Your task to perform on an android device: check out phone information Image 0: 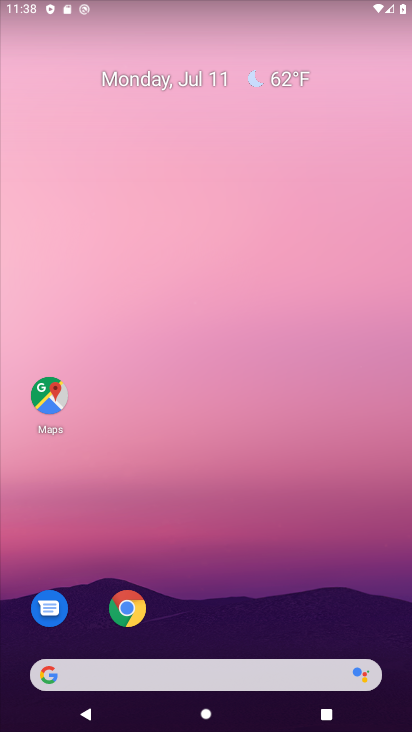
Step 0: drag from (330, 629) to (388, 0)
Your task to perform on an android device: check out phone information Image 1: 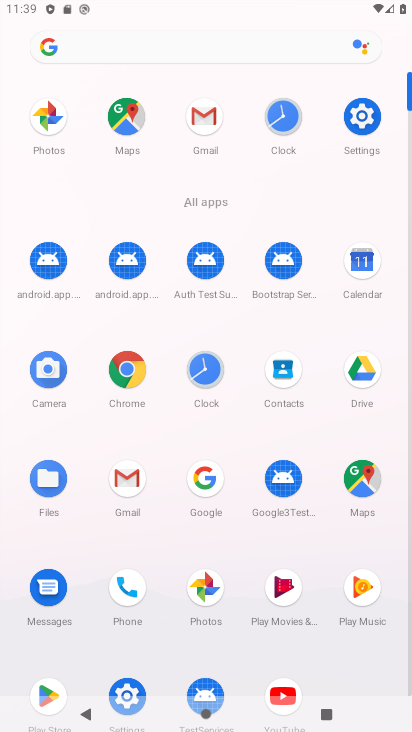
Step 1: click (366, 120)
Your task to perform on an android device: check out phone information Image 2: 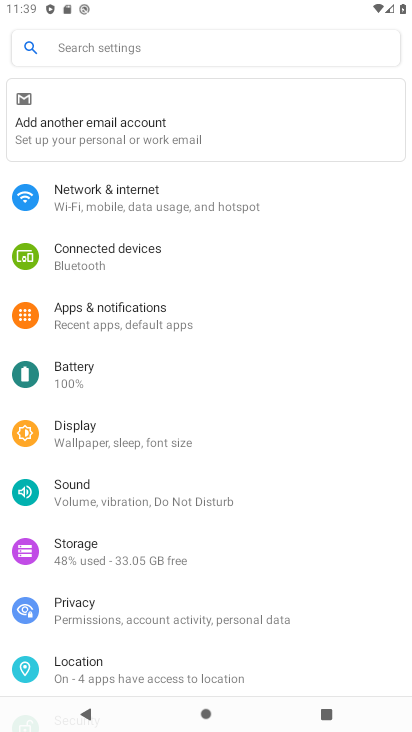
Step 2: drag from (170, 591) to (192, 134)
Your task to perform on an android device: check out phone information Image 3: 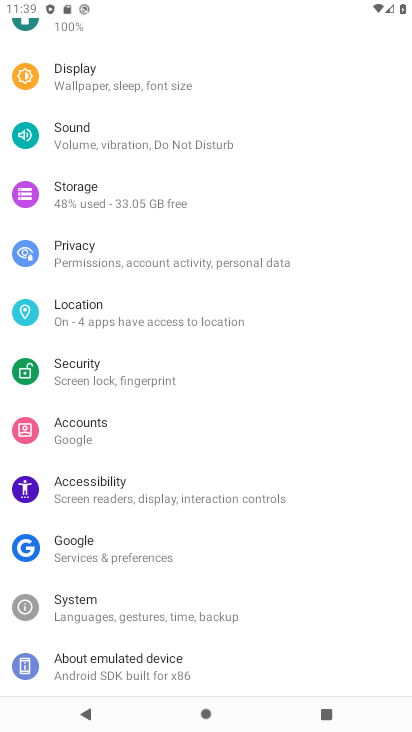
Step 3: drag from (183, 674) to (197, 84)
Your task to perform on an android device: check out phone information Image 4: 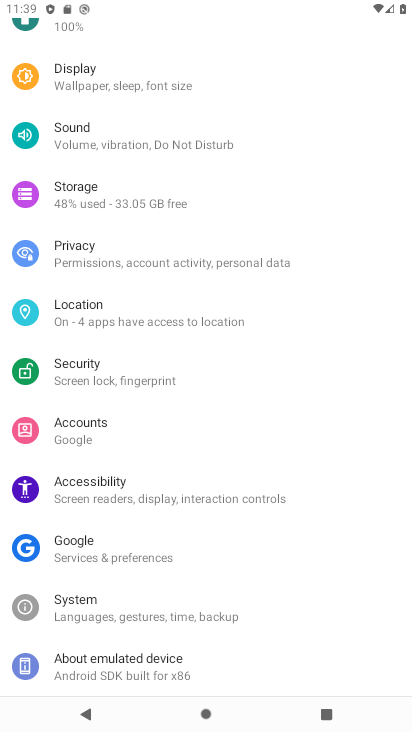
Step 4: click (131, 686)
Your task to perform on an android device: check out phone information Image 5: 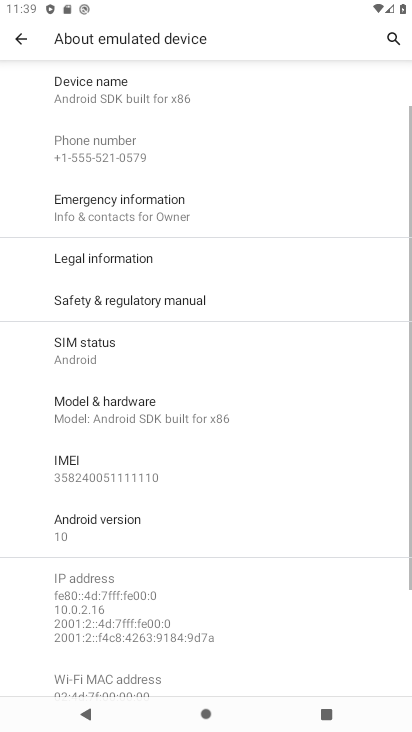
Step 5: task complete